Your task to perform on an android device: turn vacation reply on in the gmail app Image 0: 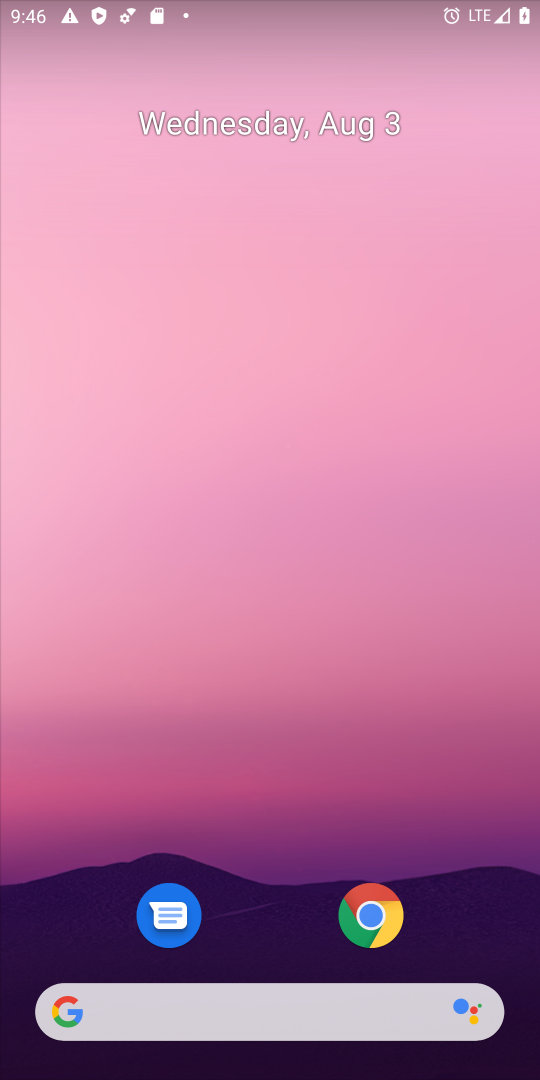
Step 0: drag from (296, 981) to (387, 370)
Your task to perform on an android device: turn vacation reply on in the gmail app Image 1: 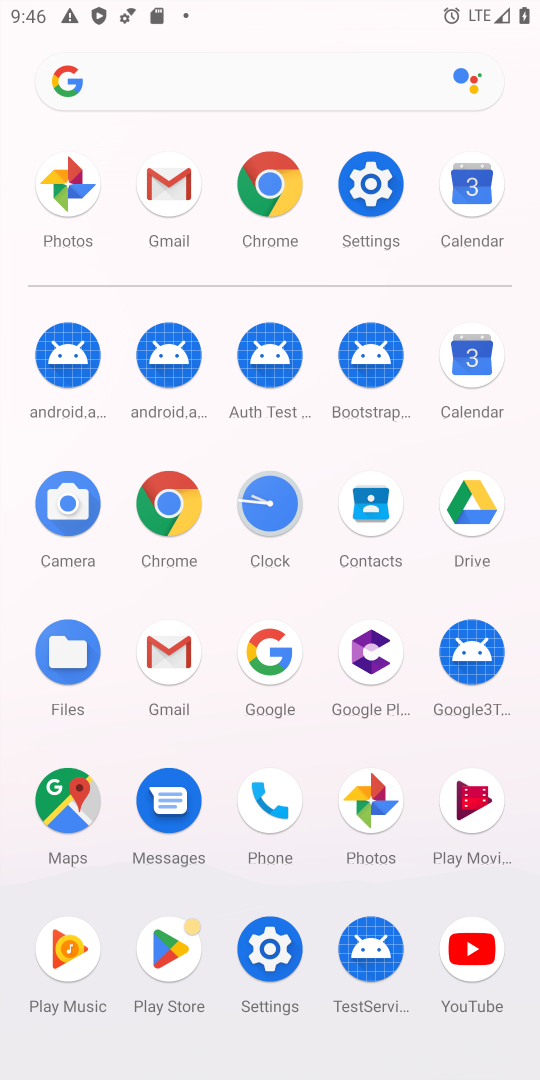
Step 1: click (153, 662)
Your task to perform on an android device: turn vacation reply on in the gmail app Image 2: 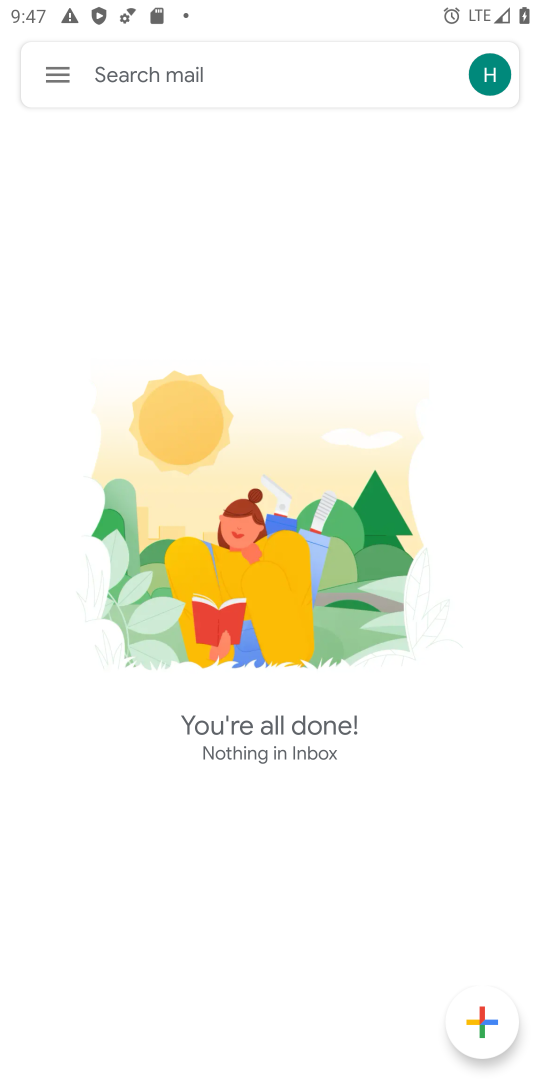
Step 2: click (56, 78)
Your task to perform on an android device: turn vacation reply on in the gmail app Image 3: 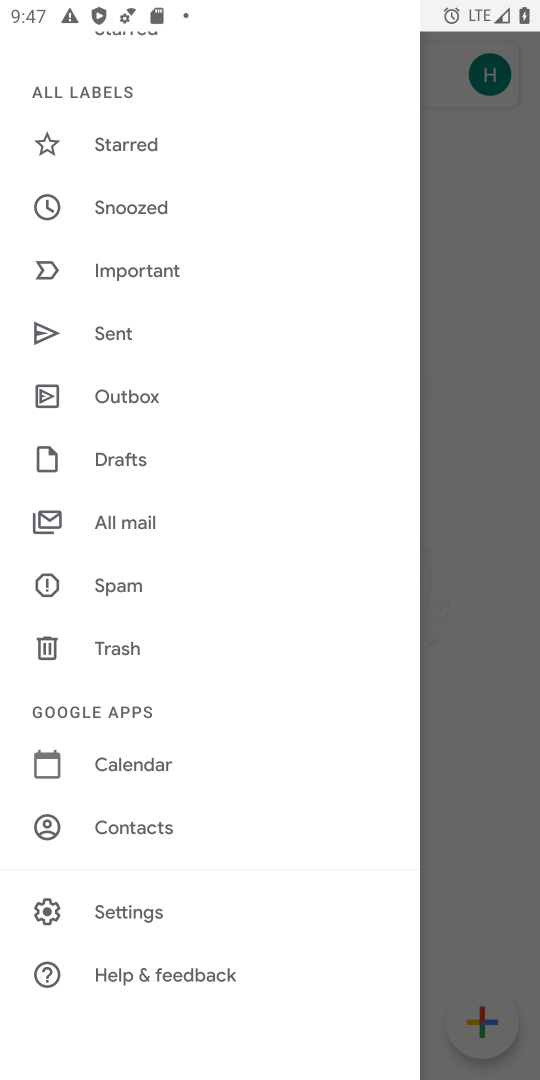
Step 3: click (111, 910)
Your task to perform on an android device: turn vacation reply on in the gmail app Image 4: 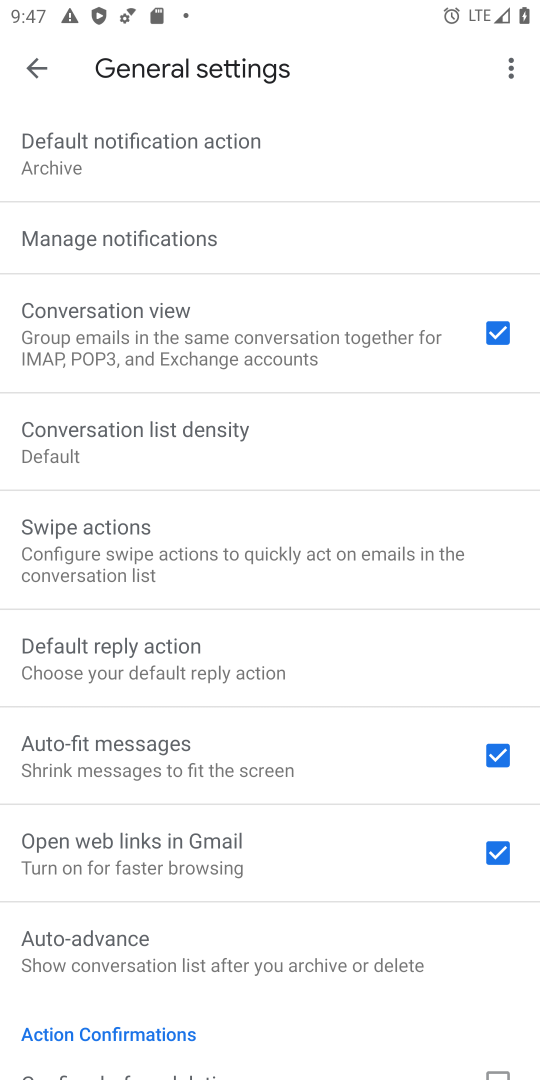
Step 4: drag from (218, 963) to (251, 297)
Your task to perform on an android device: turn vacation reply on in the gmail app Image 5: 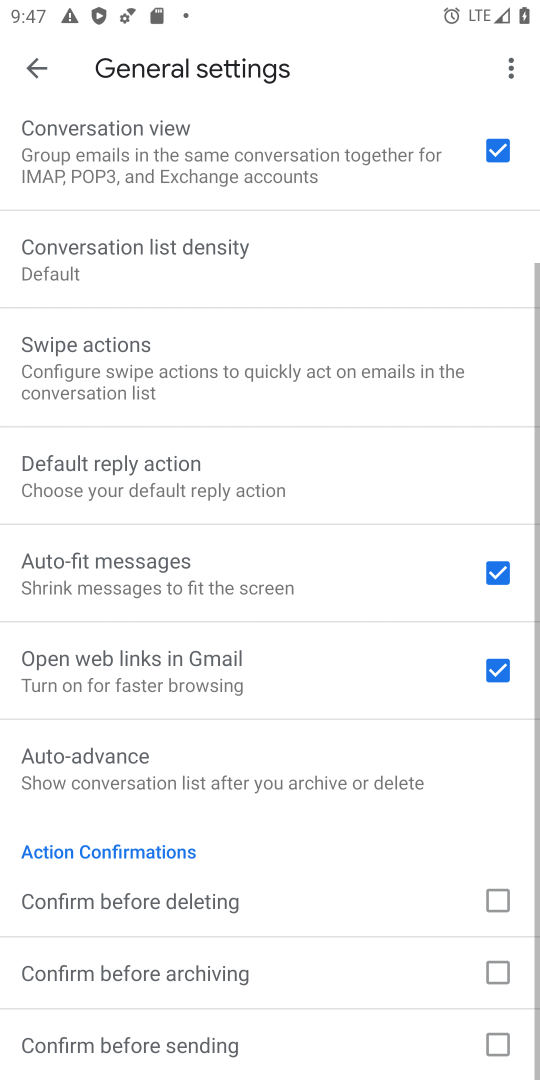
Step 5: drag from (262, 940) to (327, 195)
Your task to perform on an android device: turn vacation reply on in the gmail app Image 6: 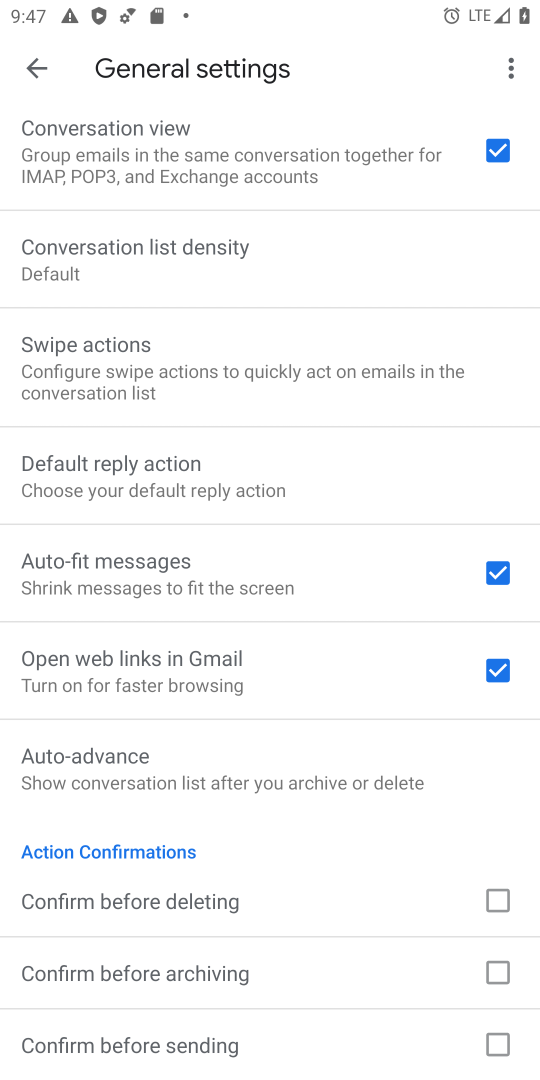
Step 6: click (35, 55)
Your task to perform on an android device: turn vacation reply on in the gmail app Image 7: 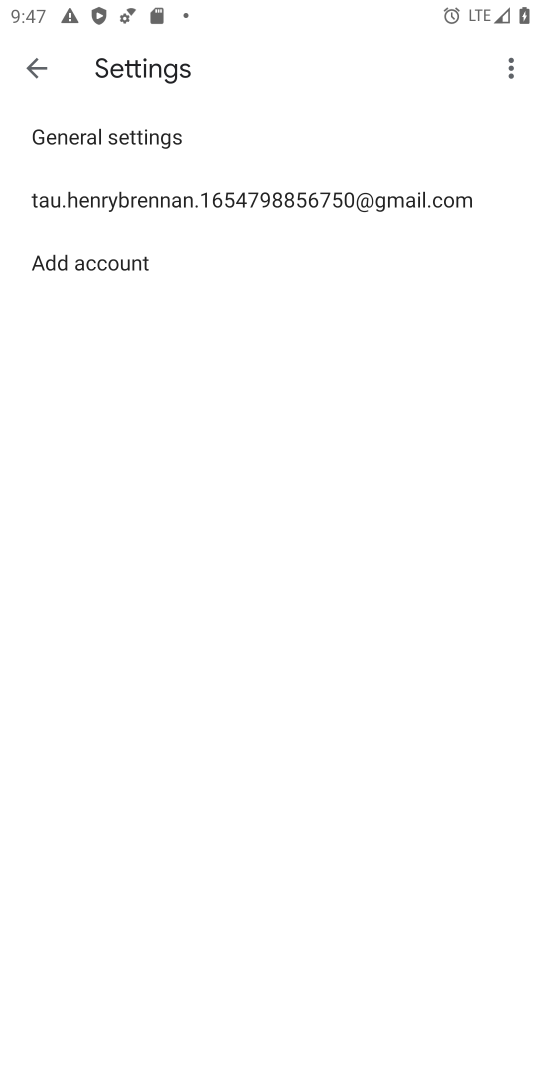
Step 7: click (99, 186)
Your task to perform on an android device: turn vacation reply on in the gmail app Image 8: 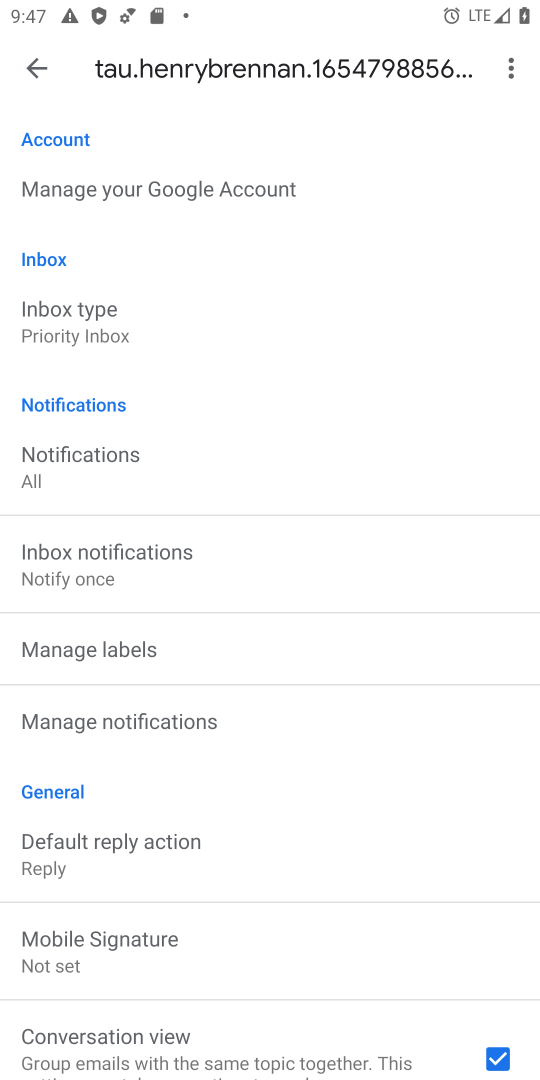
Step 8: drag from (116, 789) to (207, 63)
Your task to perform on an android device: turn vacation reply on in the gmail app Image 9: 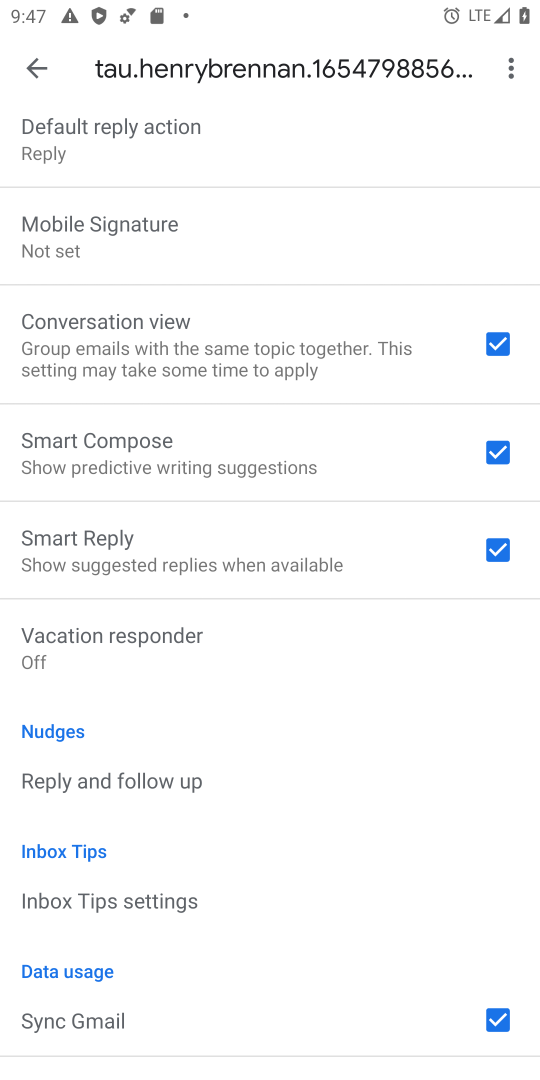
Step 9: click (127, 638)
Your task to perform on an android device: turn vacation reply on in the gmail app Image 10: 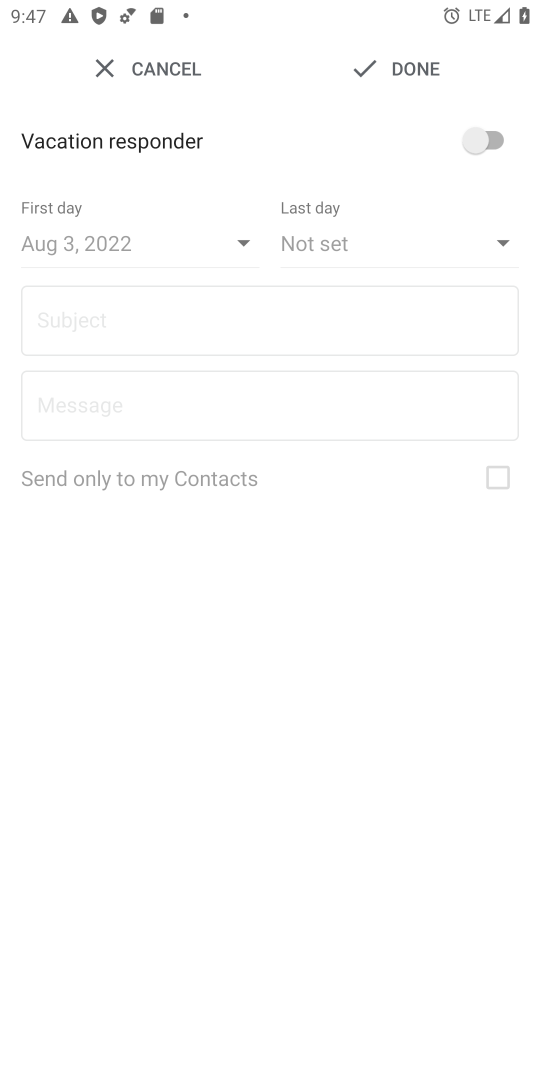
Step 10: click (492, 138)
Your task to perform on an android device: turn vacation reply on in the gmail app Image 11: 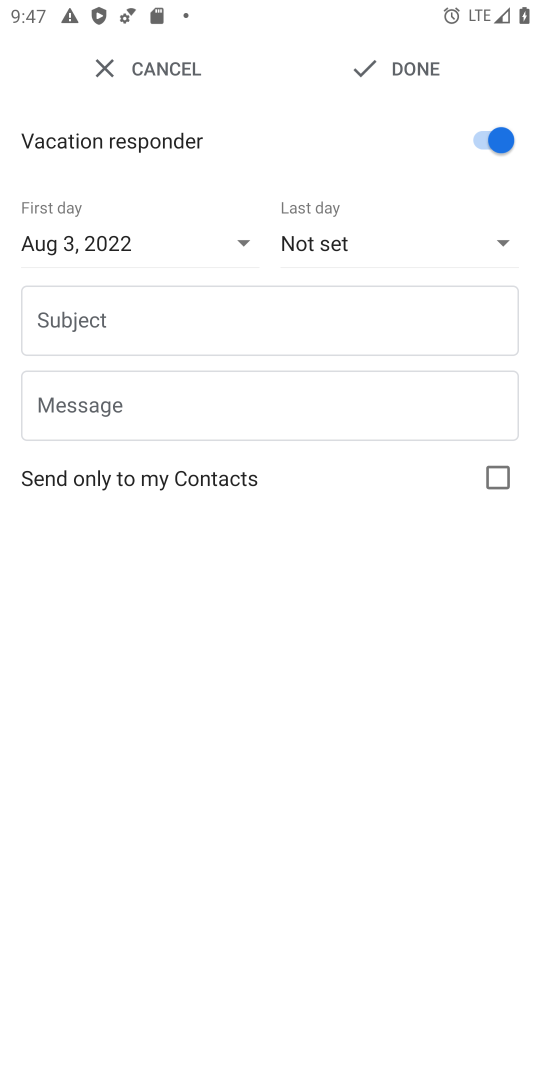
Step 11: click (401, 59)
Your task to perform on an android device: turn vacation reply on in the gmail app Image 12: 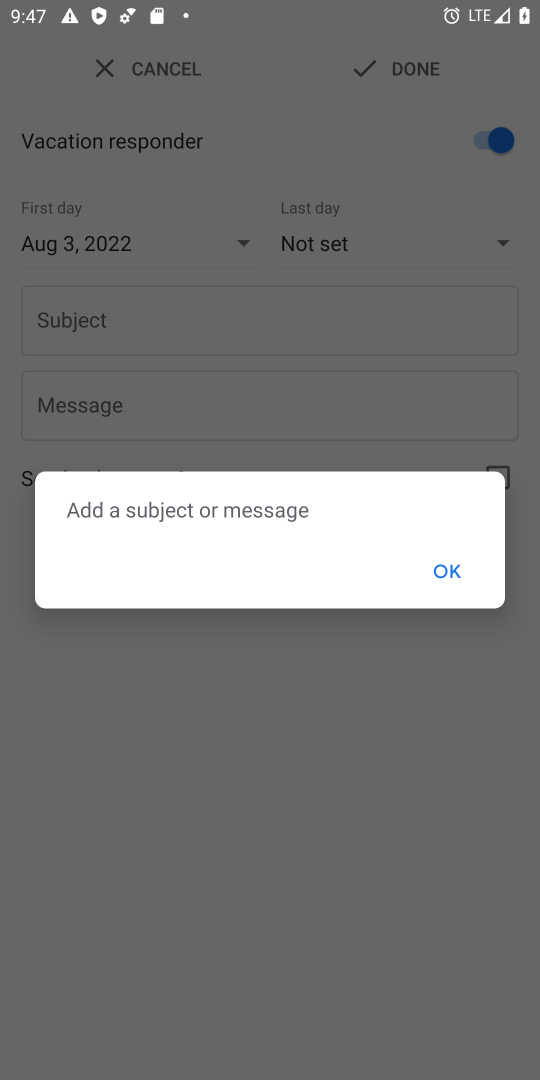
Step 12: click (448, 574)
Your task to perform on an android device: turn vacation reply on in the gmail app Image 13: 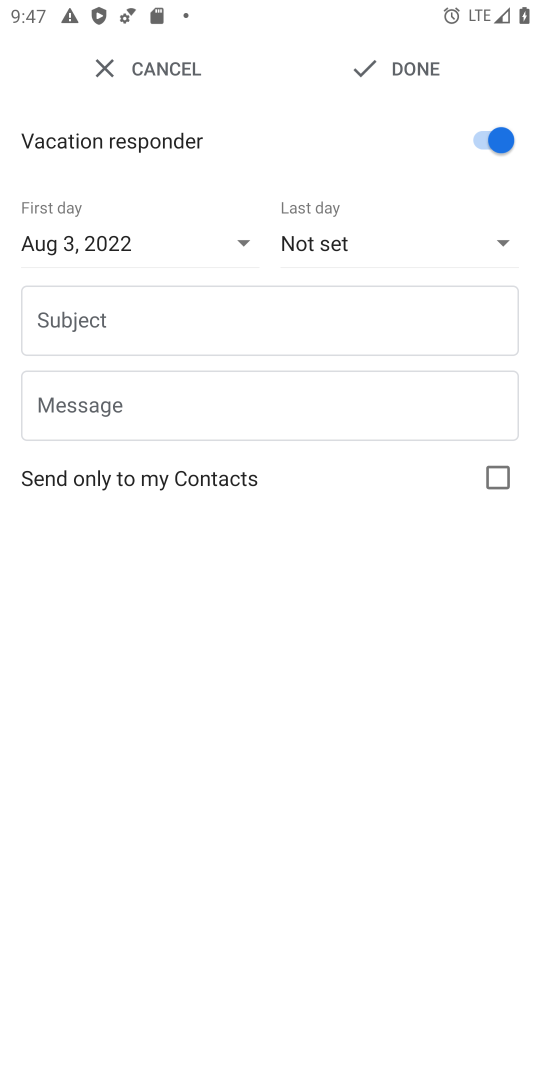
Step 13: click (105, 328)
Your task to perform on an android device: turn vacation reply on in the gmail app Image 14: 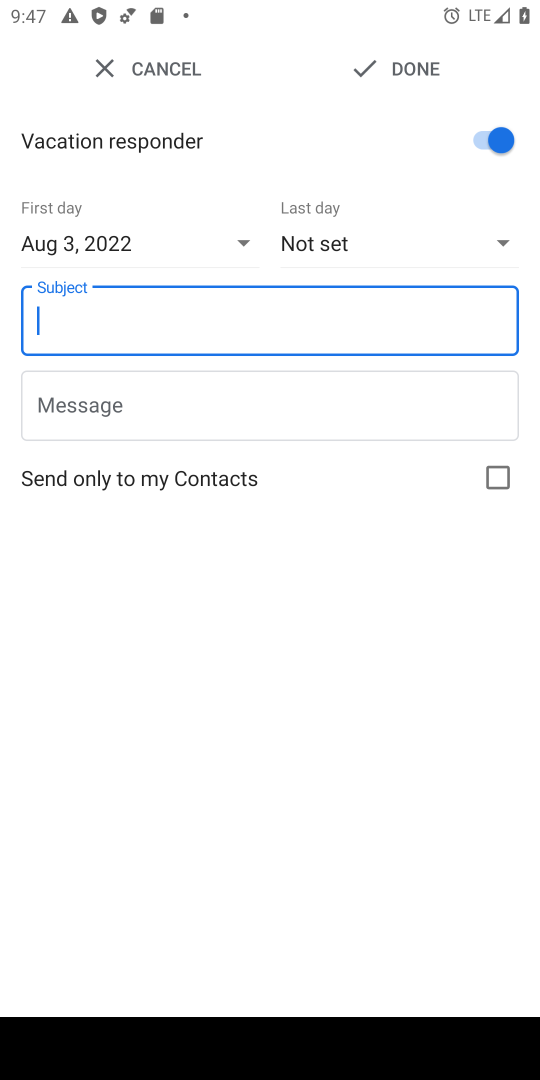
Step 14: type "happy"
Your task to perform on an android device: turn vacation reply on in the gmail app Image 15: 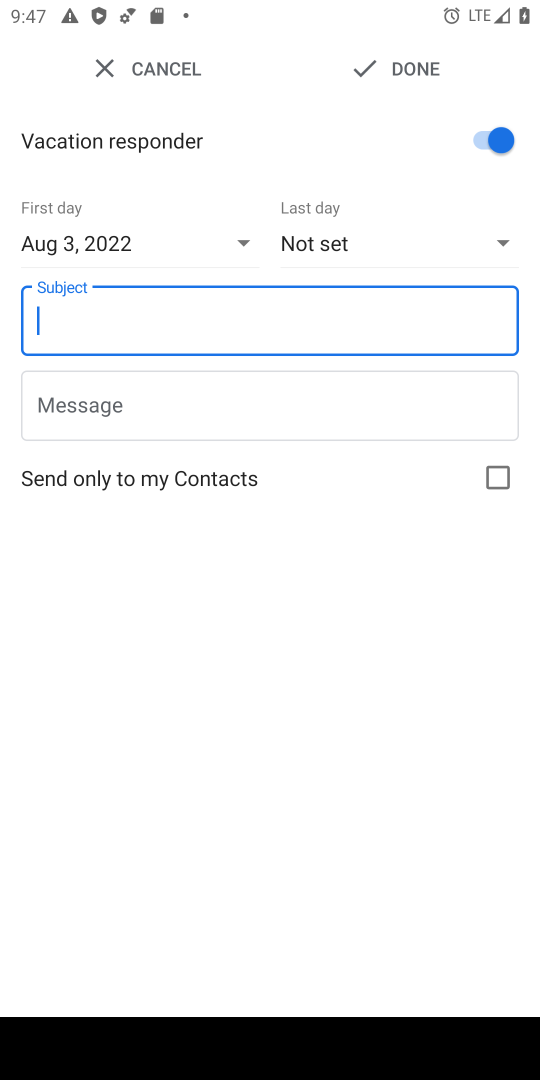
Step 15: click (142, 424)
Your task to perform on an android device: turn vacation reply on in the gmail app Image 16: 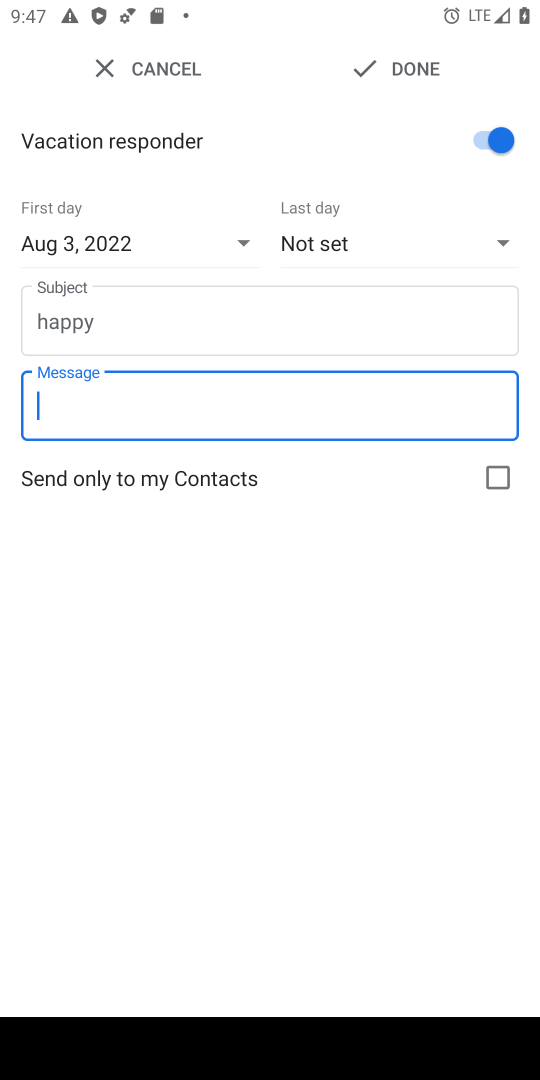
Step 16: type "hii"
Your task to perform on an android device: turn vacation reply on in the gmail app Image 17: 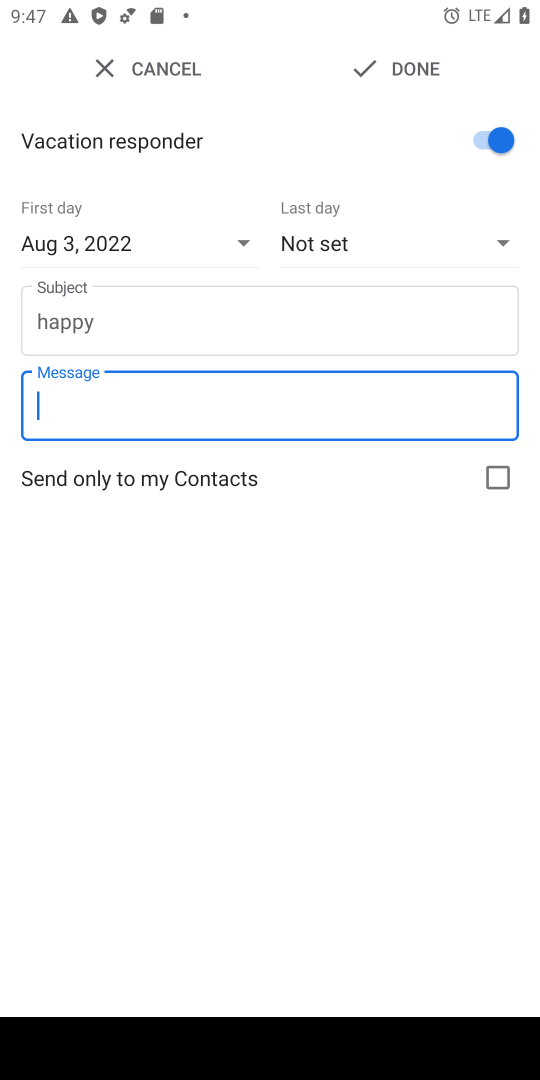
Step 17: click (397, 59)
Your task to perform on an android device: turn vacation reply on in the gmail app Image 18: 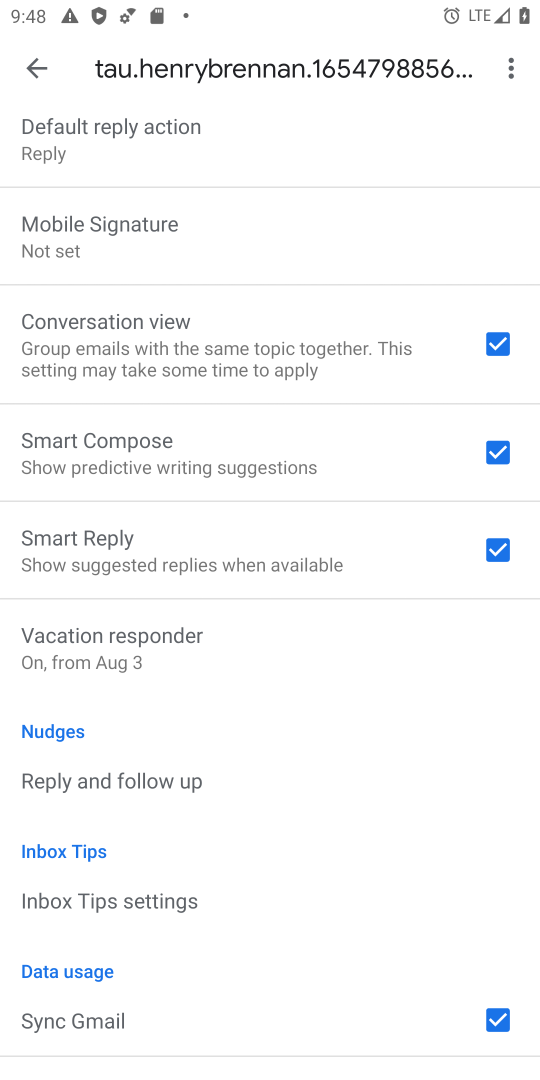
Step 18: task complete